Your task to perform on an android device: Open sound settings Image 0: 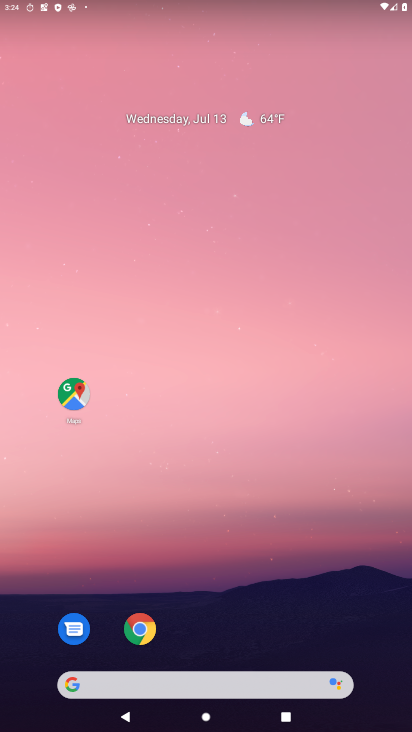
Step 0: drag from (196, 682) to (264, 51)
Your task to perform on an android device: Open sound settings Image 1: 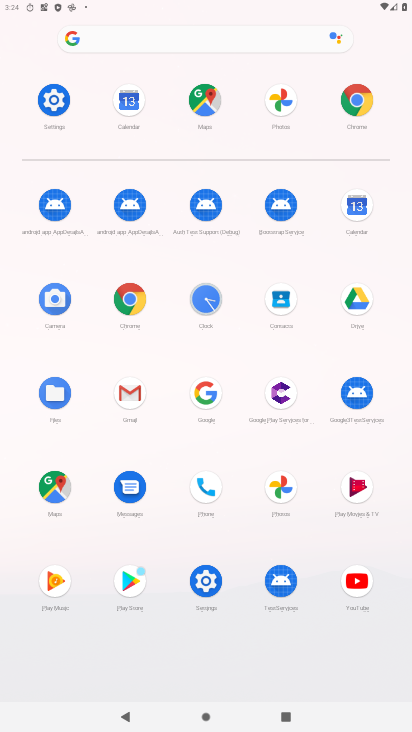
Step 1: click (63, 101)
Your task to perform on an android device: Open sound settings Image 2: 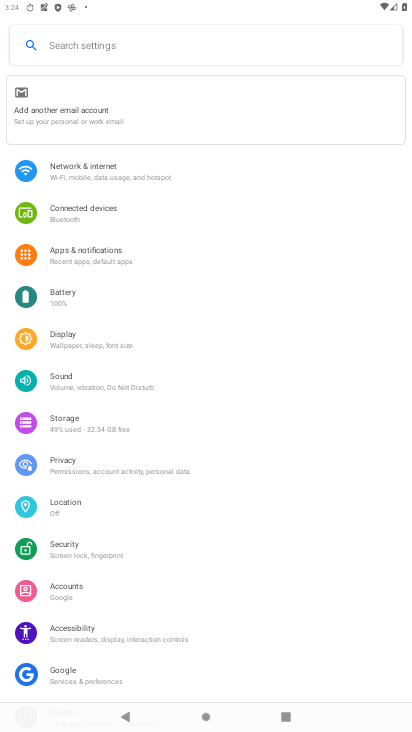
Step 2: click (115, 383)
Your task to perform on an android device: Open sound settings Image 3: 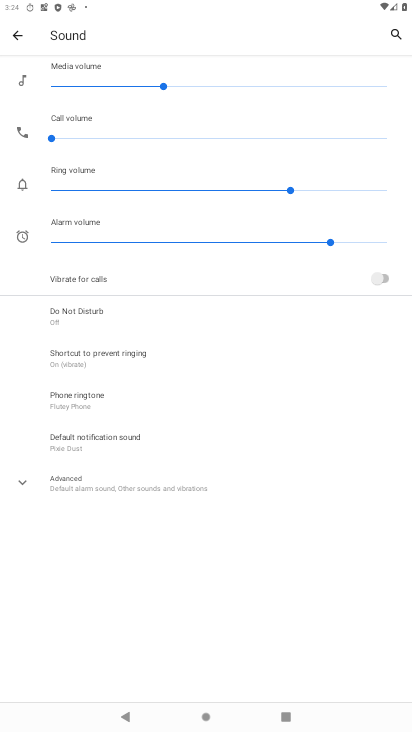
Step 3: task complete